Your task to perform on an android device: toggle sleep mode Image 0: 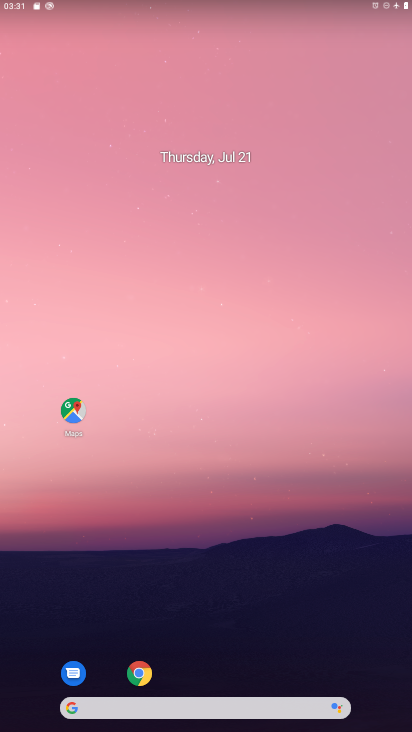
Step 0: drag from (253, 546) to (246, 139)
Your task to perform on an android device: toggle sleep mode Image 1: 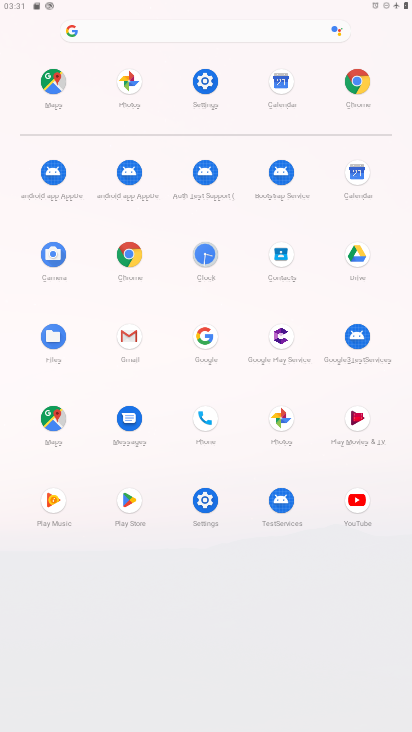
Step 1: click (201, 67)
Your task to perform on an android device: toggle sleep mode Image 2: 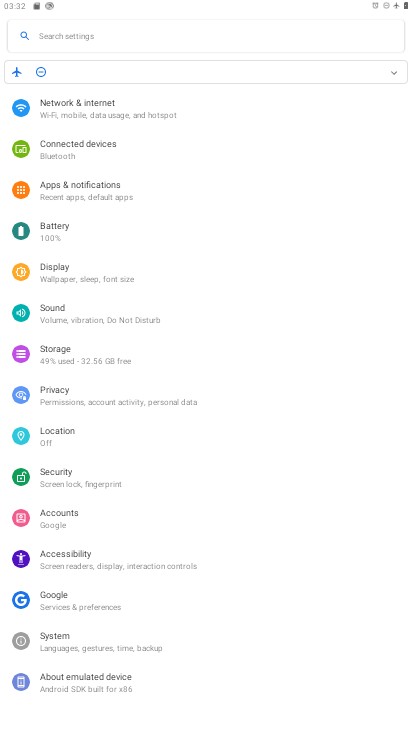
Step 2: task complete